Your task to perform on an android device: Go to network settings Image 0: 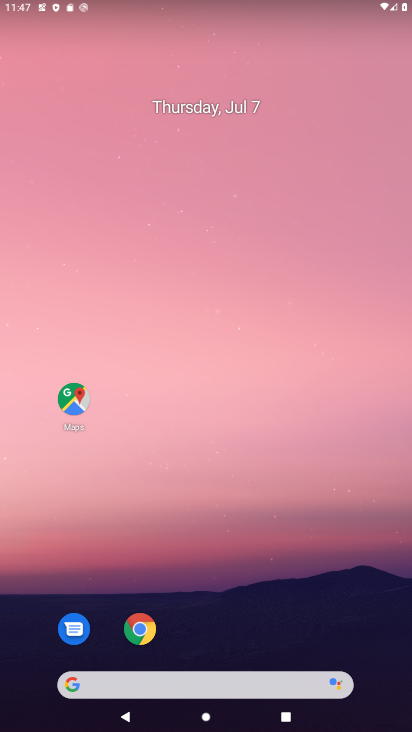
Step 0: drag from (347, 616) to (274, 164)
Your task to perform on an android device: Go to network settings Image 1: 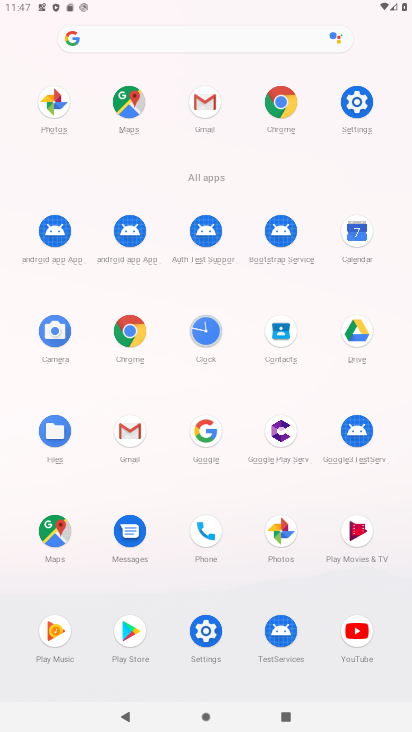
Step 1: click (205, 633)
Your task to perform on an android device: Go to network settings Image 2: 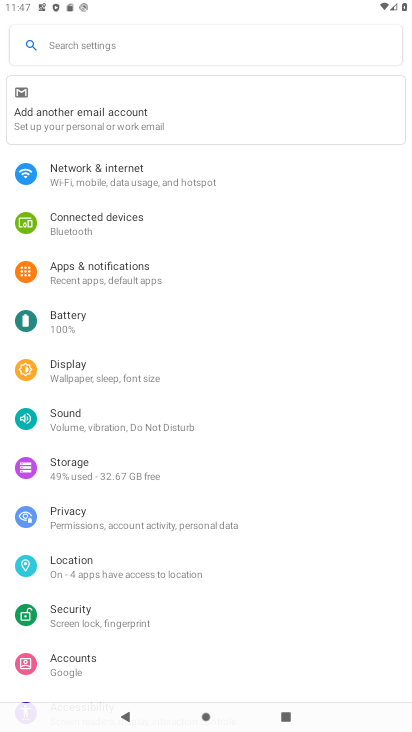
Step 2: click (90, 170)
Your task to perform on an android device: Go to network settings Image 3: 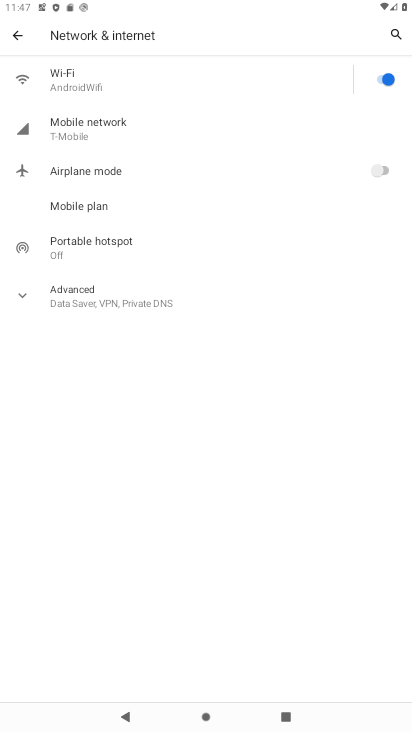
Step 3: click (83, 126)
Your task to perform on an android device: Go to network settings Image 4: 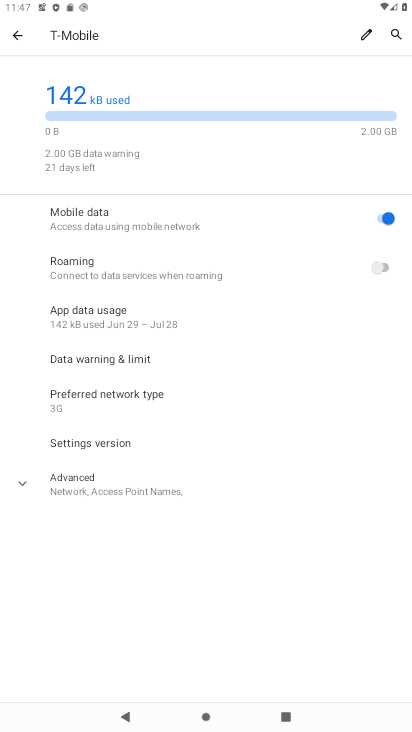
Step 4: click (23, 481)
Your task to perform on an android device: Go to network settings Image 5: 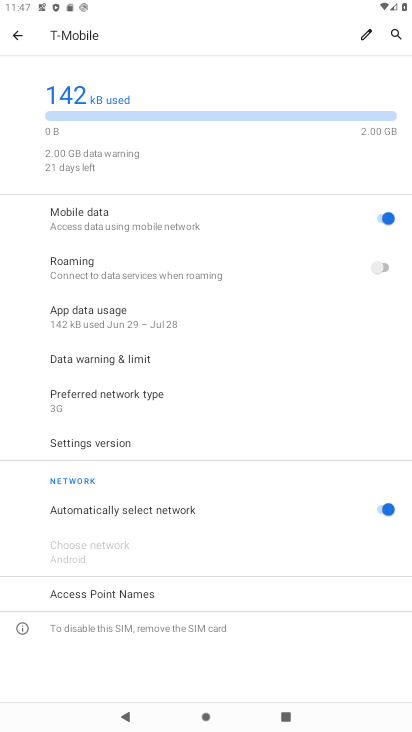
Step 5: task complete